Your task to perform on an android device: turn on showing notifications on the lock screen Image 0: 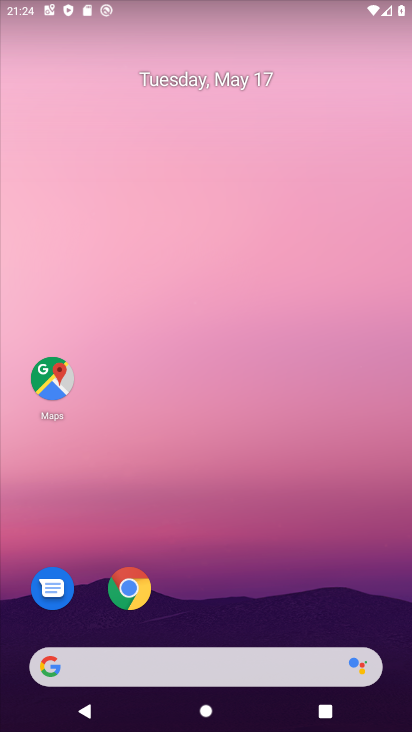
Step 0: drag from (227, 631) to (109, 24)
Your task to perform on an android device: turn on showing notifications on the lock screen Image 1: 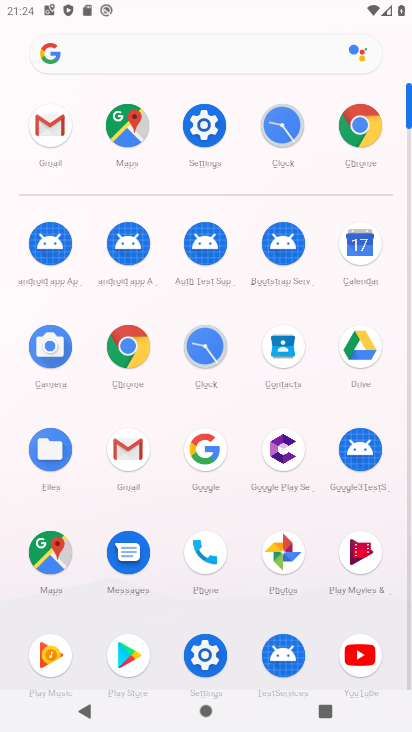
Step 1: click (206, 136)
Your task to perform on an android device: turn on showing notifications on the lock screen Image 2: 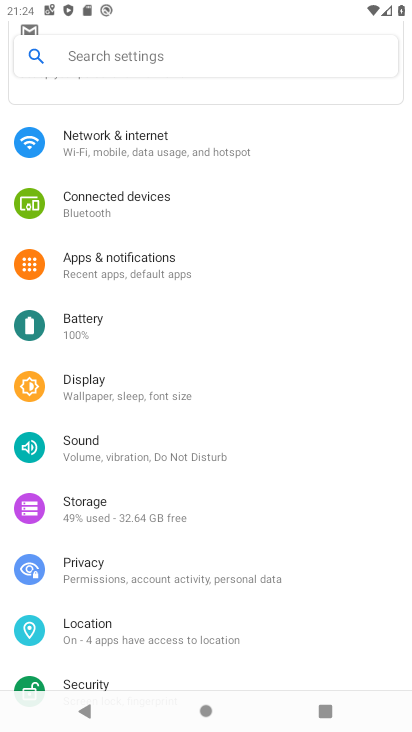
Step 2: click (139, 250)
Your task to perform on an android device: turn on showing notifications on the lock screen Image 3: 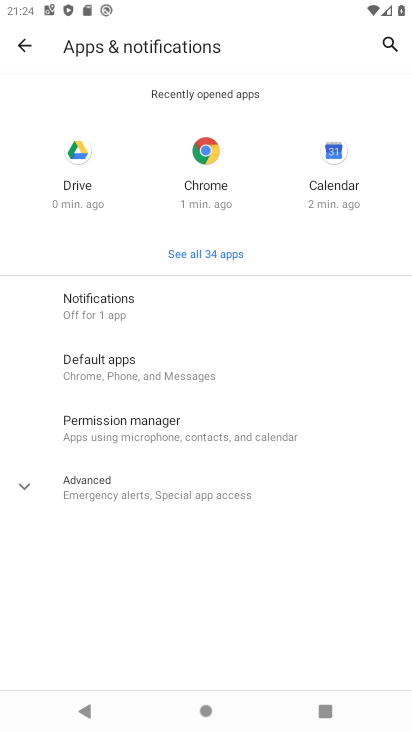
Step 3: click (148, 484)
Your task to perform on an android device: turn on showing notifications on the lock screen Image 4: 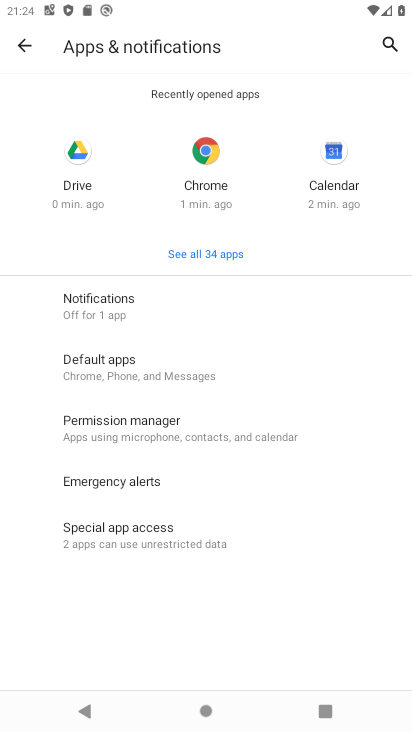
Step 4: click (106, 300)
Your task to perform on an android device: turn on showing notifications on the lock screen Image 5: 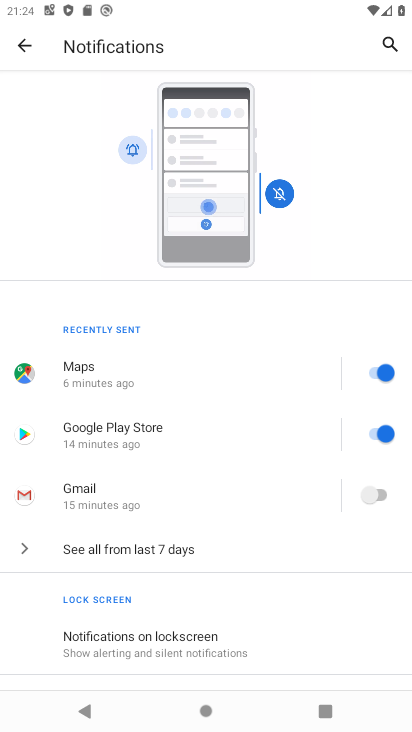
Step 5: click (142, 650)
Your task to perform on an android device: turn on showing notifications on the lock screen Image 6: 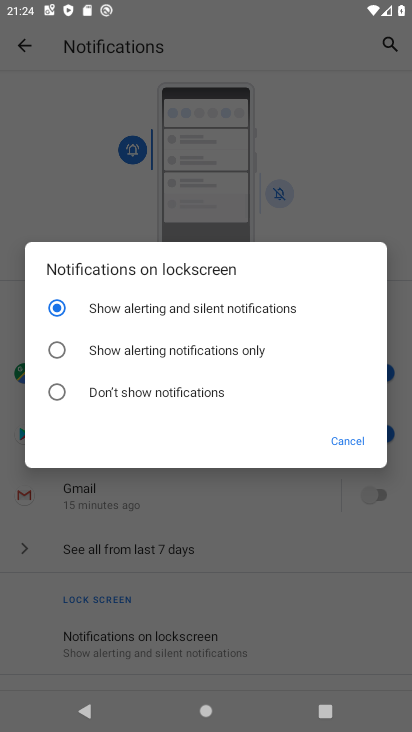
Step 6: click (141, 304)
Your task to perform on an android device: turn on showing notifications on the lock screen Image 7: 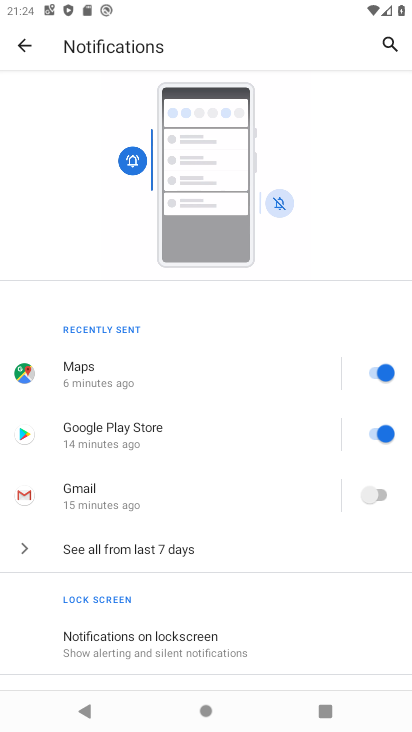
Step 7: task complete